Your task to perform on an android device: Search for dining room chairs on Crate & Barrel Image 0: 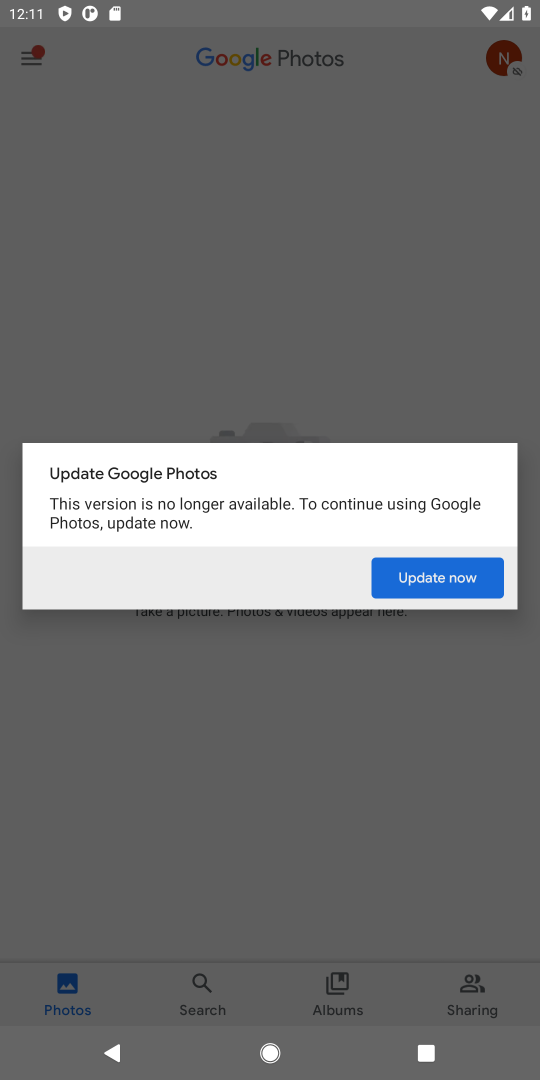
Step 0: press home button
Your task to perform on an android device: Search for dining room chairs on Crate & Barrel Image 1: 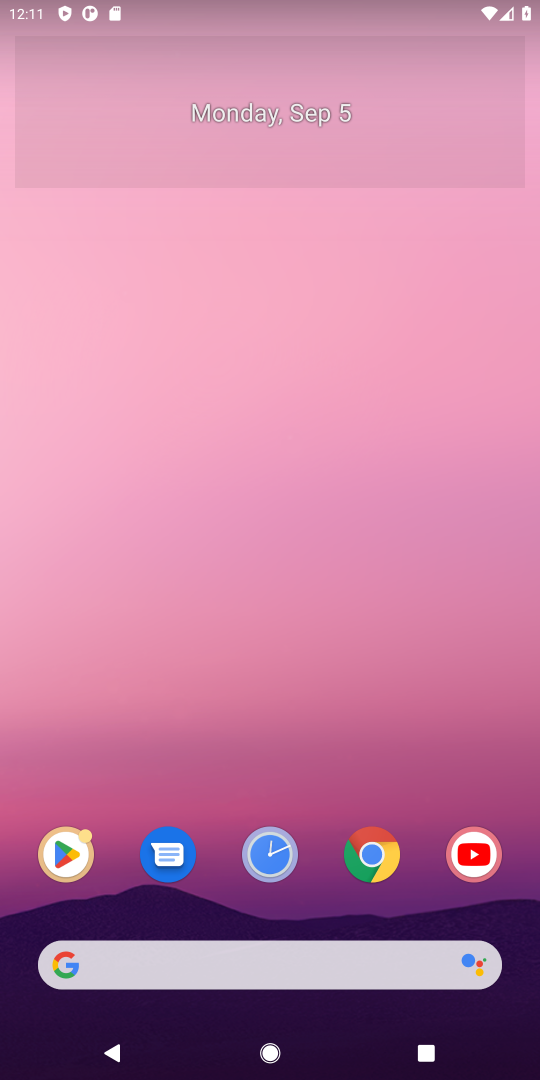
Step 1: click (384, 855)
Your task to perform on an android device: Search for dining room chairs on Crate & Barrel Image 2: 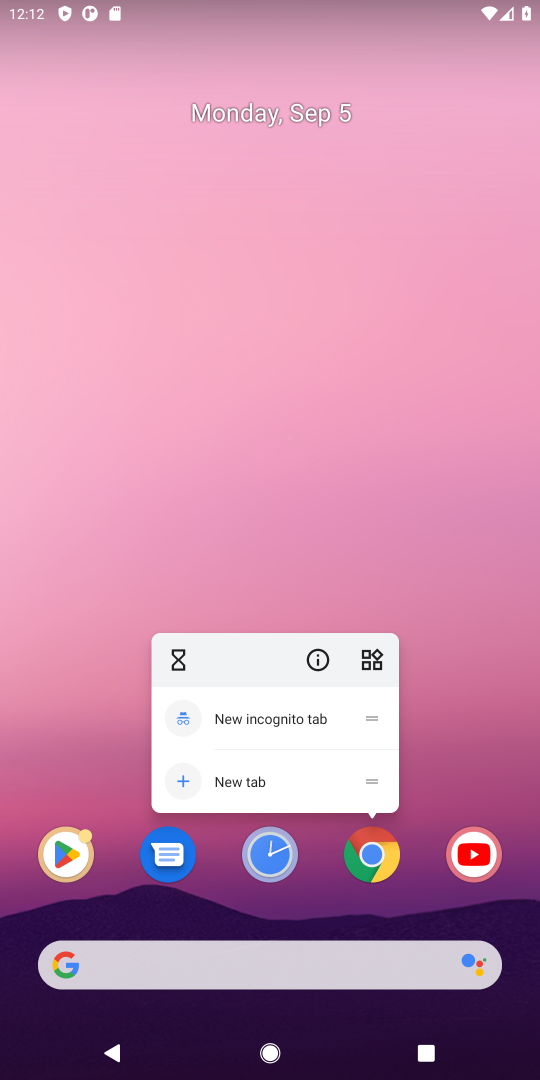
Step 2: click (384, 857)
Your task to perform on an android device: Search for dining room chairs on Crate & Barrel Image 3: 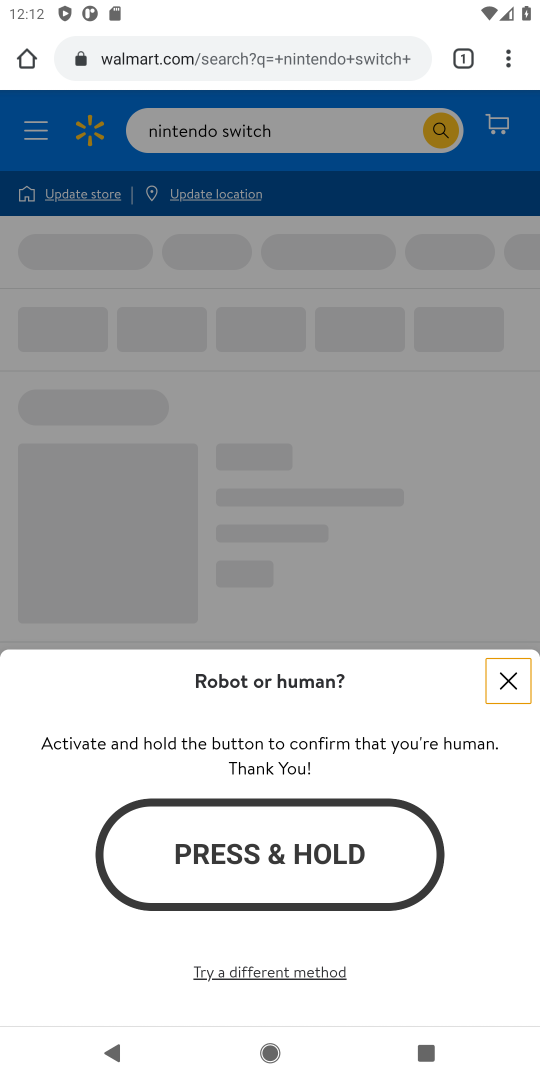
Step 3: click (316, 64)
Your task to perform on an android device: Search for dining room chairs on Crate & Barrel Image 4: 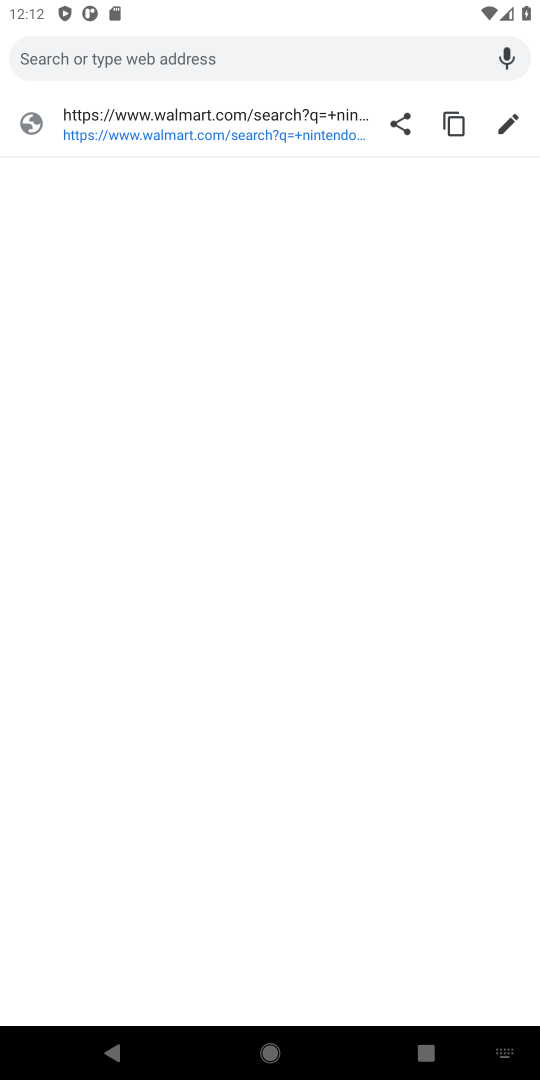
Step 4: press enter
Your task to perform on an android device: Search for dining room chairs on Crate & Barrel Image 5: 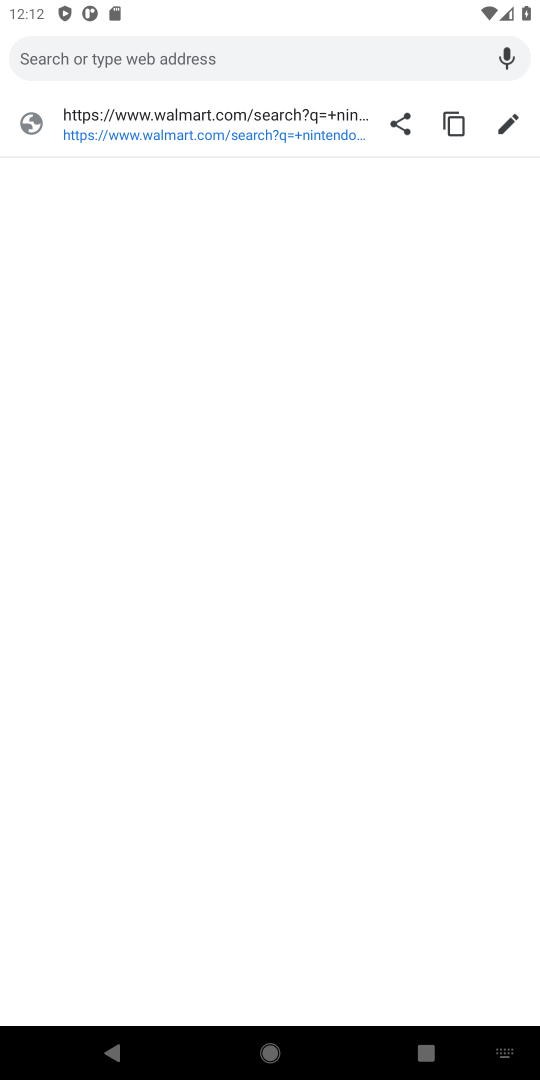
Step 5: type "Crate & Barrel"
Your task to perform on an android device: Search for dining room chairs on Crate & Barrel Image 6: 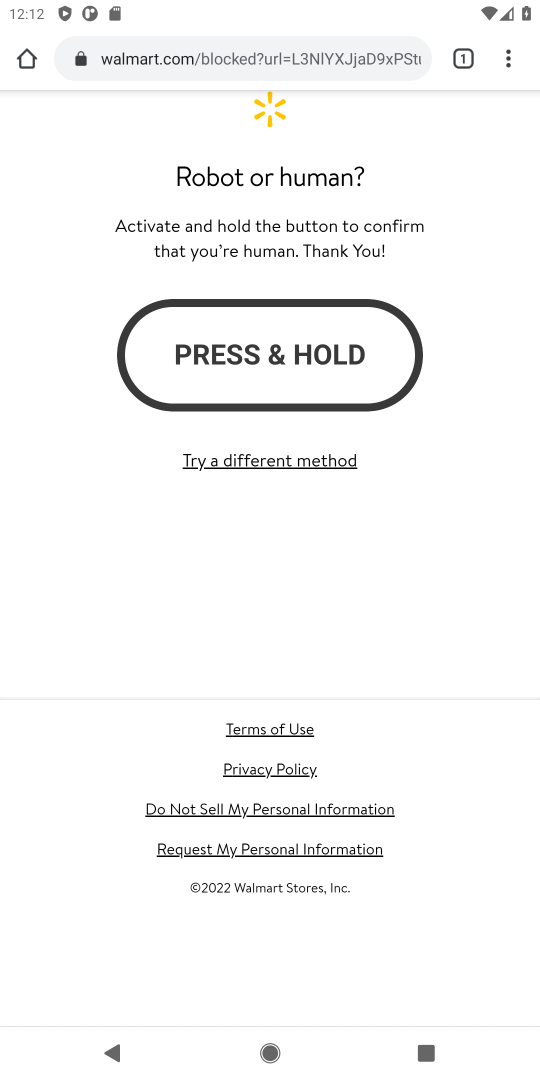
Step 6: click (291, 60)
Your task to perform on an android device: Search for dining room chairs on Crate & Barrel Image 7: 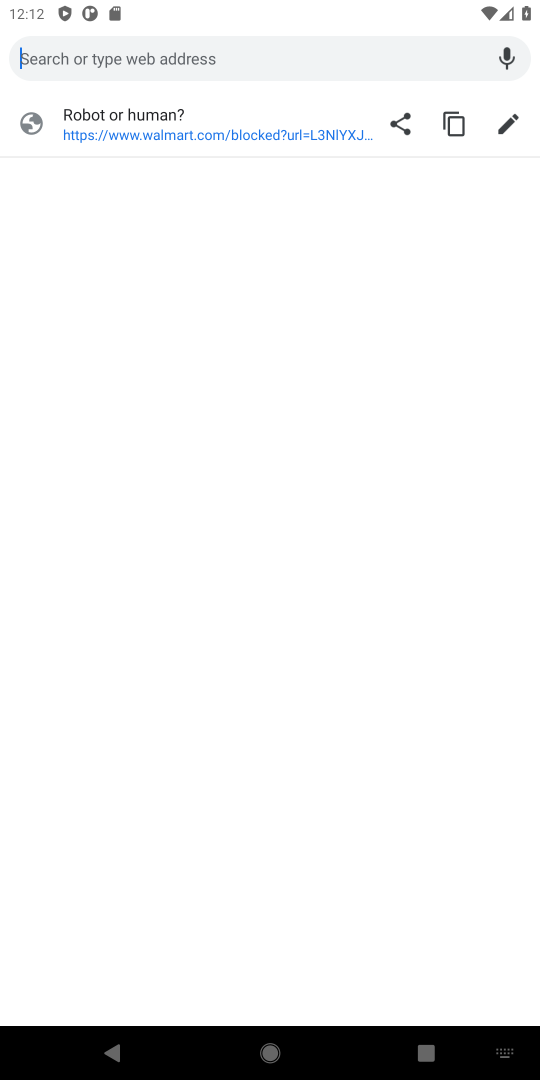
Step 7: type "Crate & Barrel"
Your task to perform on an android device: Search for dining room chairs on Crate & Barrel Image 8: 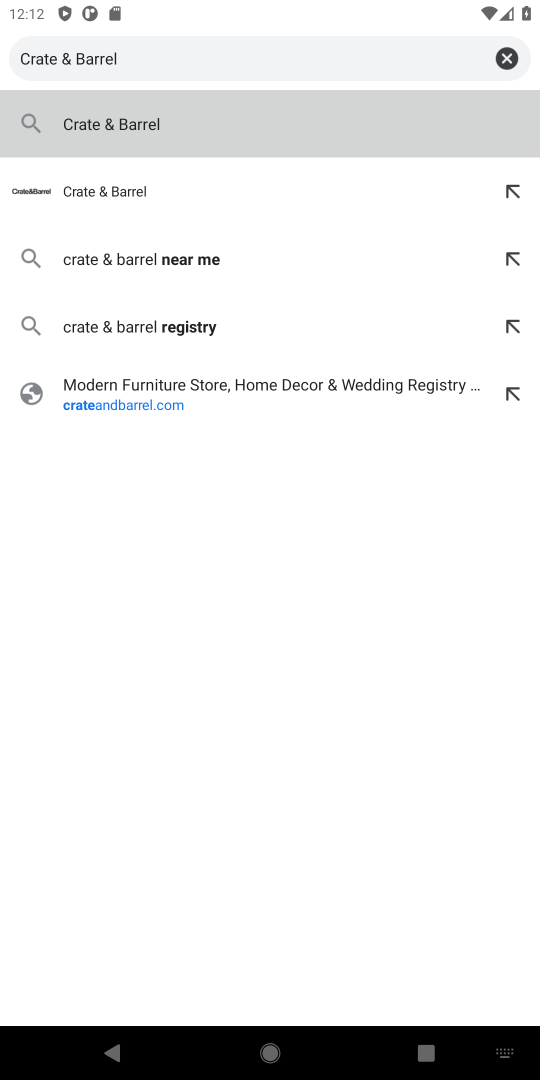
Step 8: press enter
Your task to perform on an android device: Search for dining room chairs on Crate & Barrel Image 9: 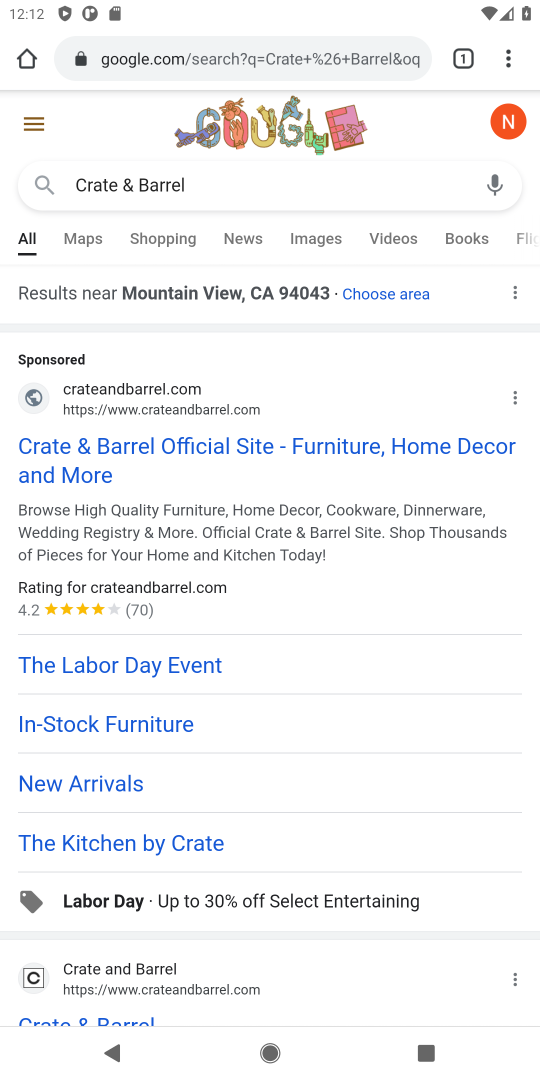
Step 9: drag from (327, 799) to (489, 386)
Your task to perform on an android device: Search for dining room chairs on Crate & Barrel Image 10: 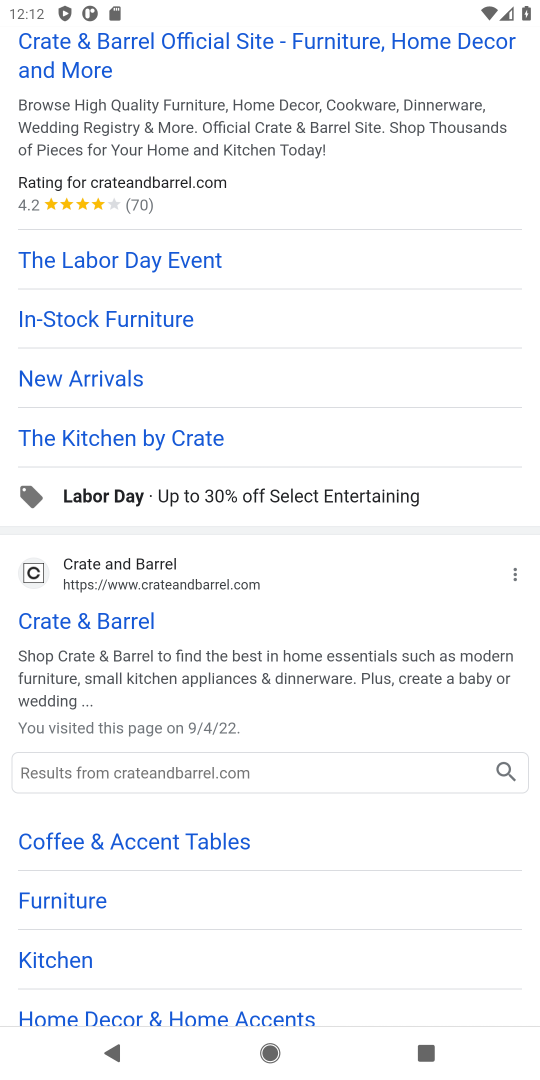
Step 10: click (109, 626)
Your task to perform on an android device: Search for dining room chairs on Crate & Barrel Image 11: 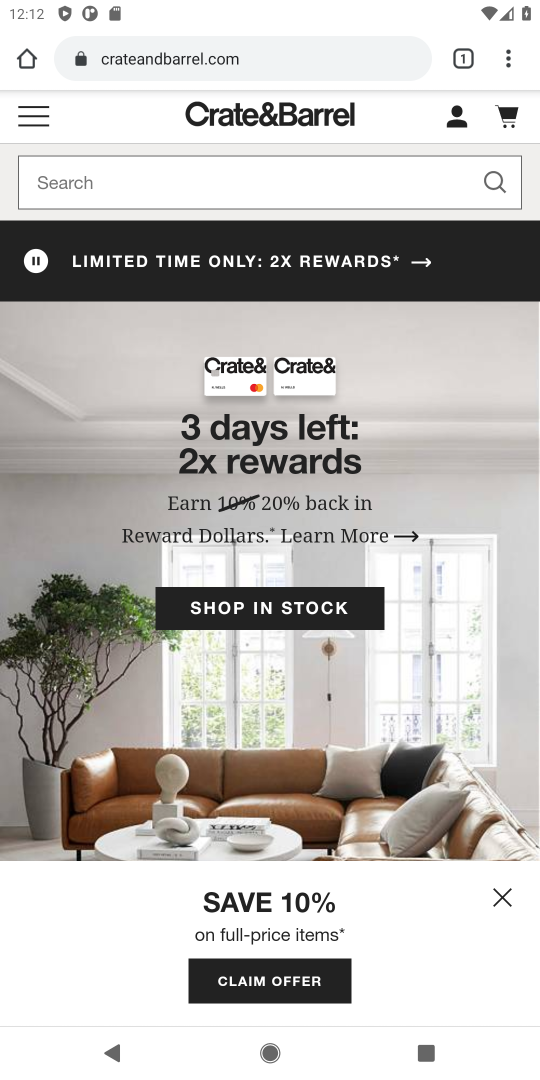
Step 11: click (198, 180)
Your task to perform on an android device: Search for dining room chairs on Crate & Barrel Image 12: 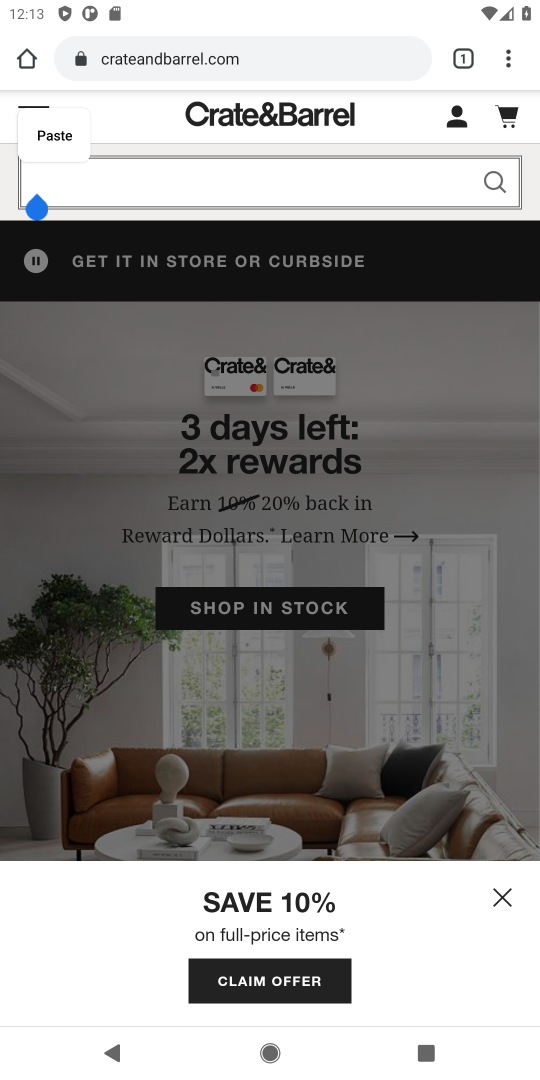
Step 12: press enter
Your task to perform on an android device: Search for dining room chairs on Crate & Barrel Image 13: 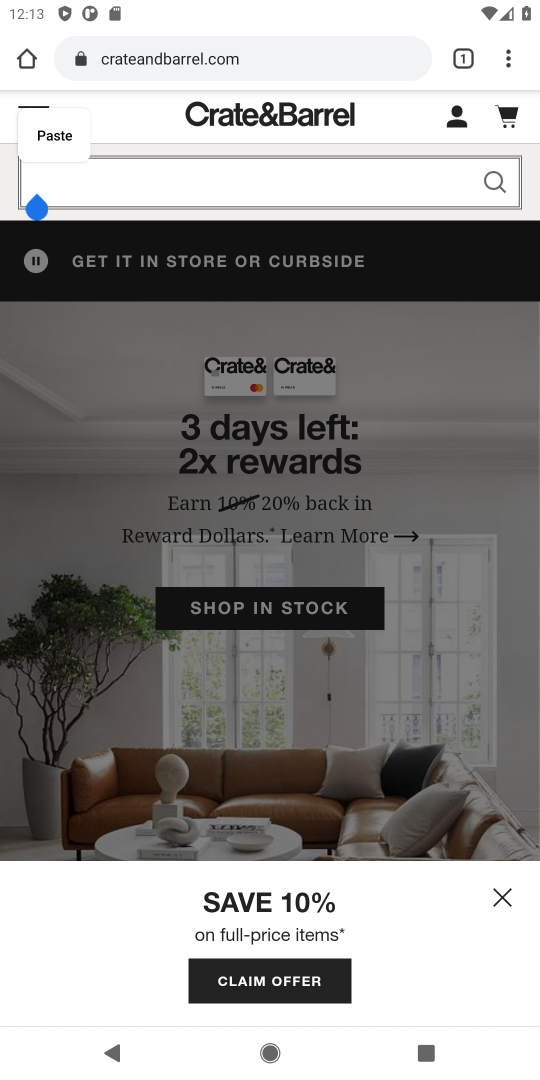
Step 13: type "dining room chairs"
Your task to perform on an android device: Search for dining room chairs on Crate & Barrel Image 14: 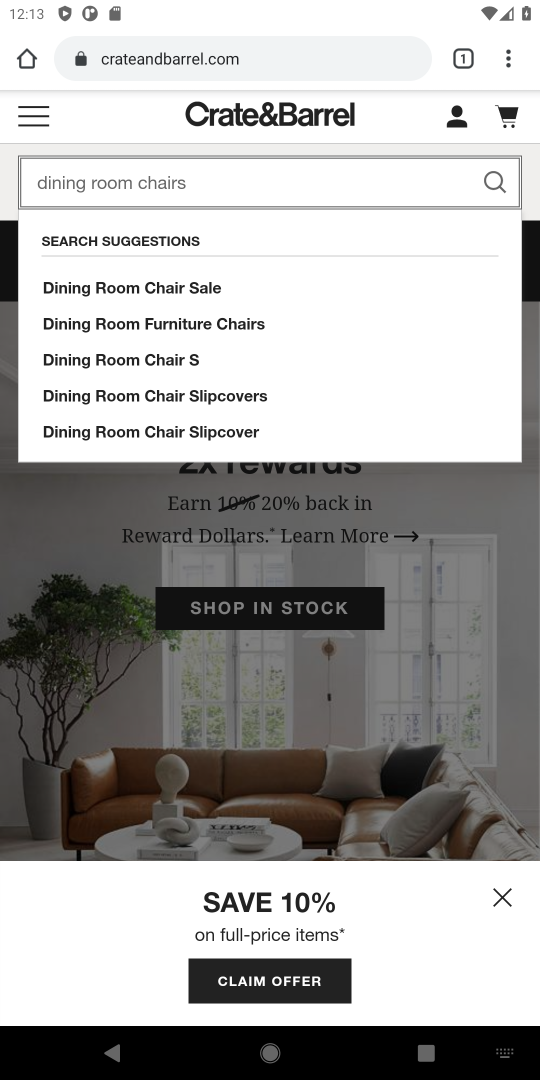
Step 14: click (497, 174)
Your task to perform on an android device: Search for dining room chairs on Crate & Barrel Image 15: 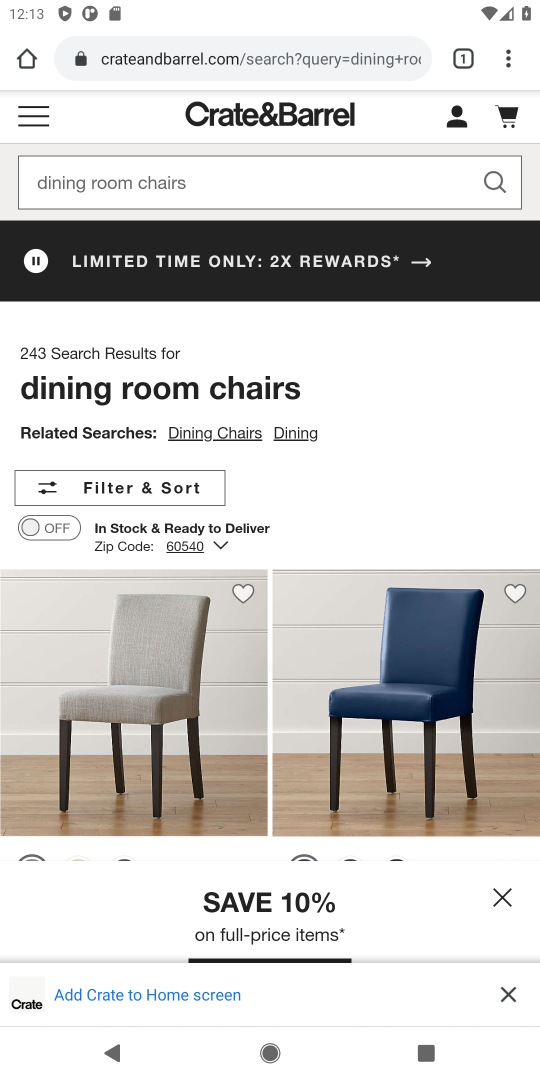
Step 15: click (505, 895)
Your task to perform on an android device: Search for dining room chairs on Crate & Barrel Image 16: 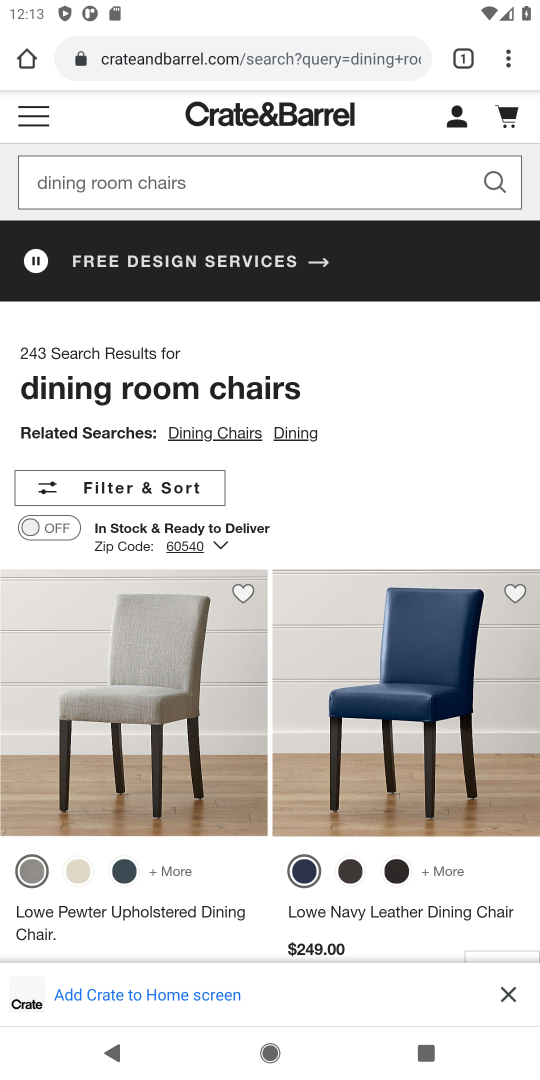
Step 16: task complete